Your task to perform on an android device: turn off notifications settings in the gmail app Image 0: 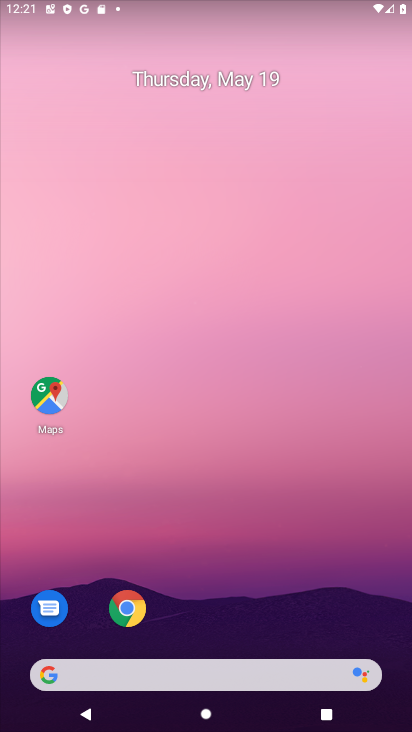
Step 0: drag from (236, 542) to (238, 227)
Your task to perform on an android device: turn off notifications settings in the gmail app Image 1: 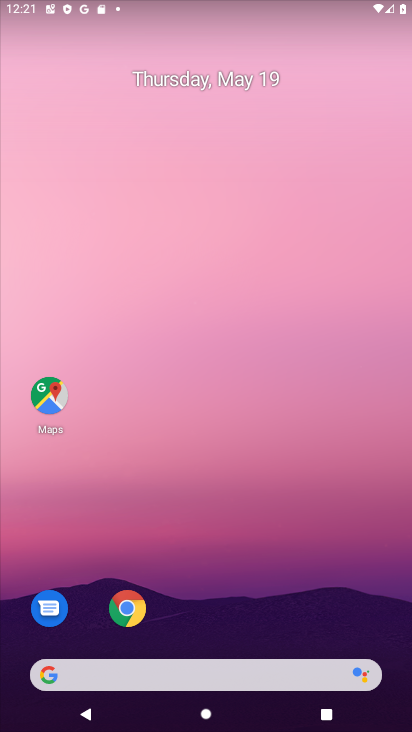
Step 1: drag from (290, 575) to (277, 193)
Your task to perform on an android device: turn off notifications settings in the gmail app Image 2: 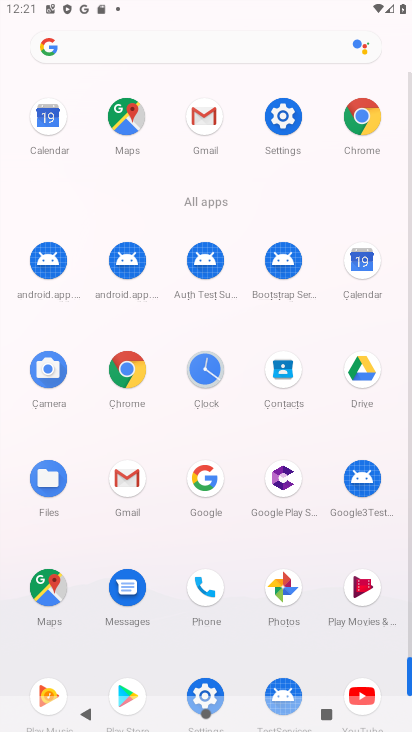
Step 2: click (115, 473)
Your task to perform on an android device: turn off notifications settings in the gmail app Image 3: 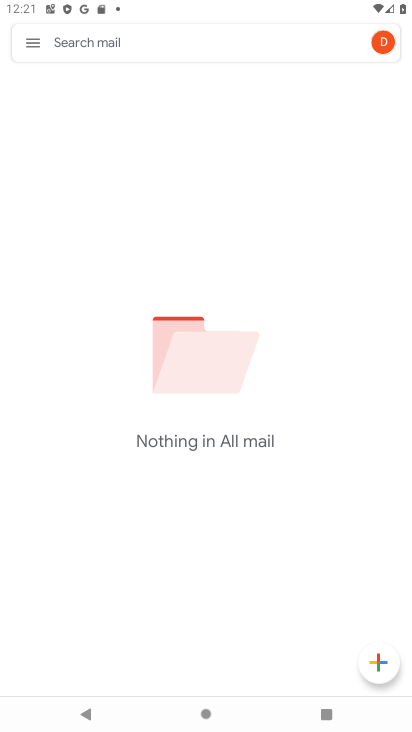
Step 3: click (28, 38)
Your task to perform on an android device: turn off notifications settings in the gmail app Image 4: 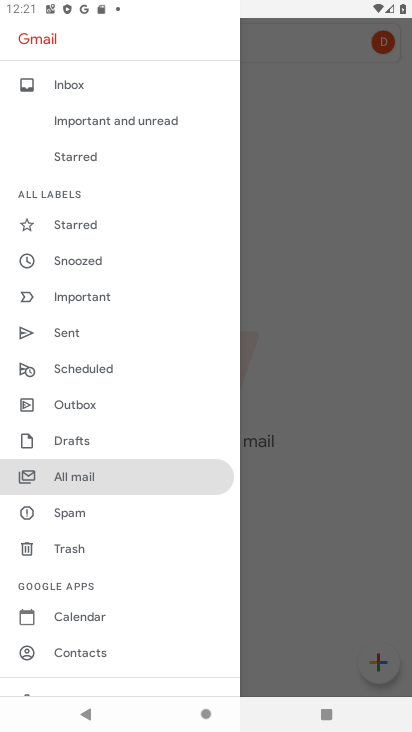
Step 4: drag from (109, 626) to (152, 311)
Your task to perform on an android device: turn off notifications settings in the gmail app Image 5: 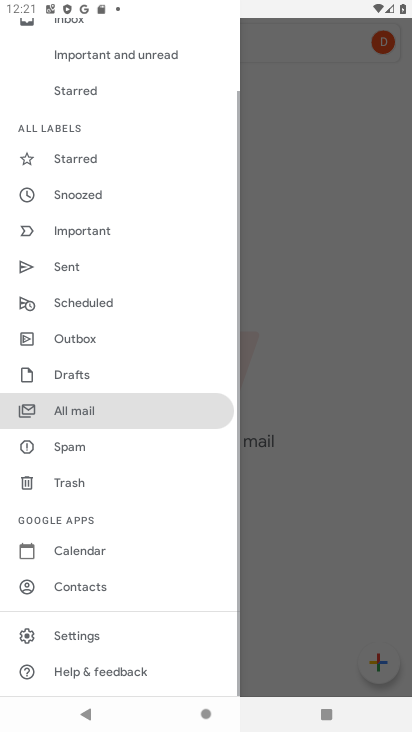
Step 5: click (80, 642)
Your task to perform on an android device: turn off notifications settings in the gmail app Image 6: 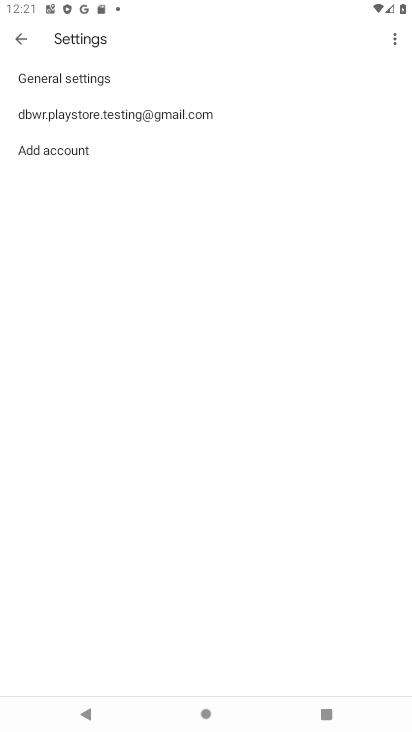
Step 6: click (135, 104)
Your task to perform on an android device: turn off notifications settings in the gmail app Image 7: 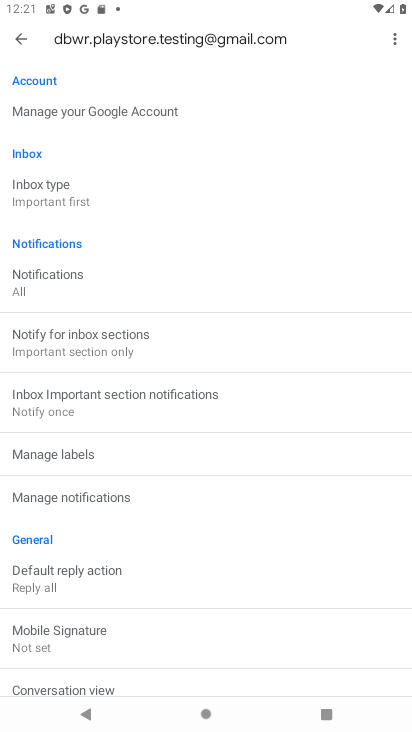
Step 7: drag from (192, 627) to (214, 371)
Your task to perform on an android device: turn off notifications settings in the gmail app Image 8: 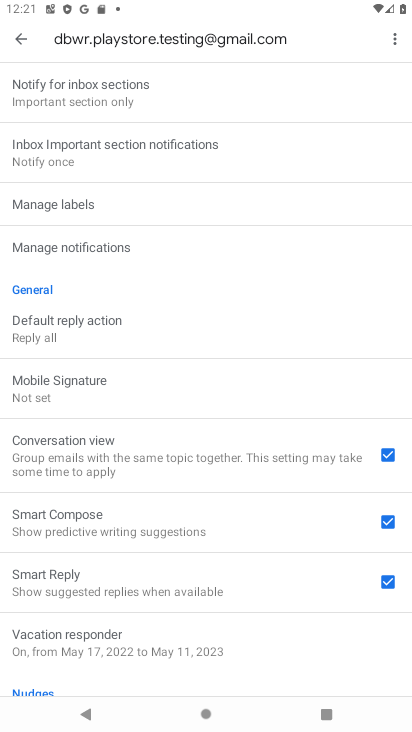
Step 8: drag from (131, 137) to (139, 206)
Your task to perform on an android device: turn off notifications settings in the gmail app Image 9: 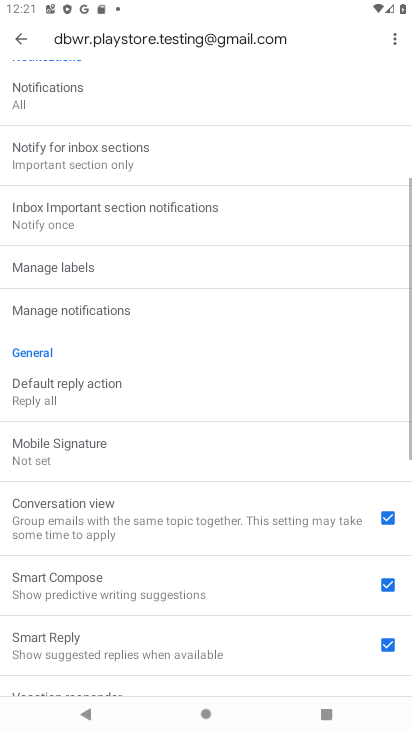
Step 9: drag from (144, 226) to (146, 261)
Your task to perform on an android device: turn off notifications settings in the gmail app Image 10: 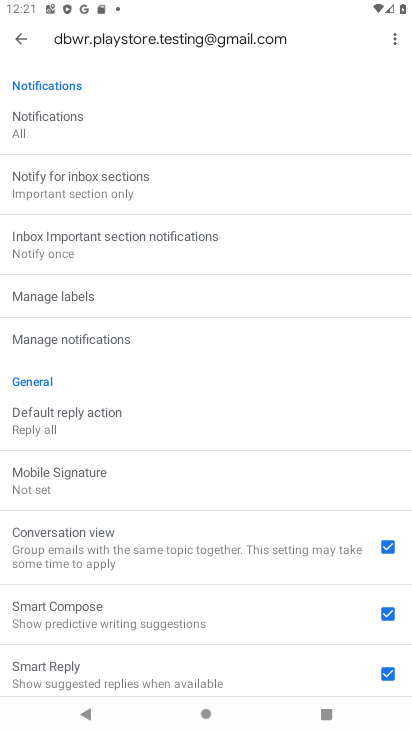
Step 10: click (79, 126)
Your task to perform on an android device: turn off notifications settings in the gmail app Image 11: 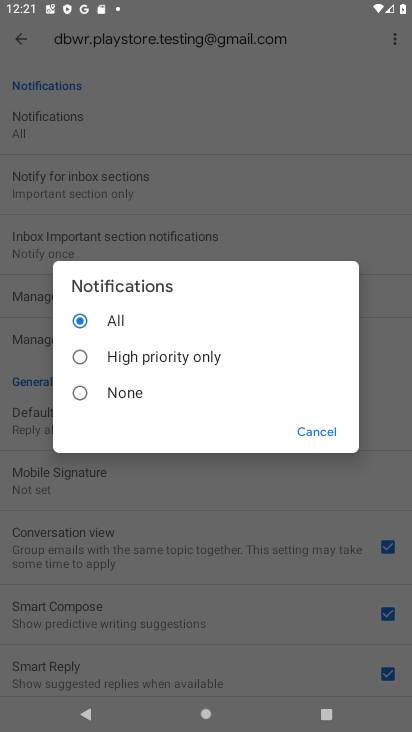
Step 11: click (130, 390)
Your task to perform on an android device: turn off notifications settings in the gmail app Image 12: 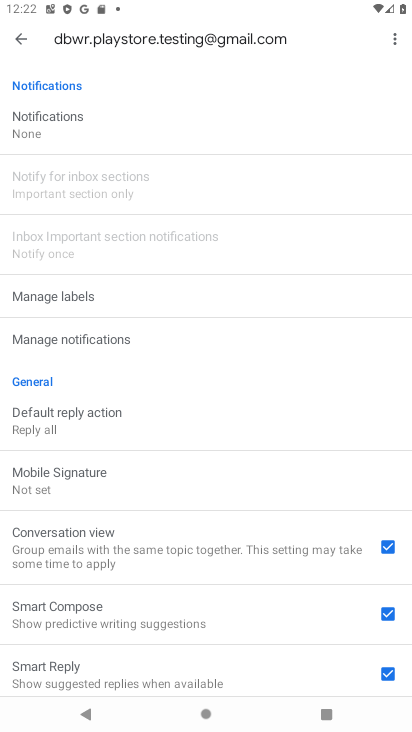
Step 12: task complete